Your task to perform on an android device: visit the assistant section in the google photos Image 0: 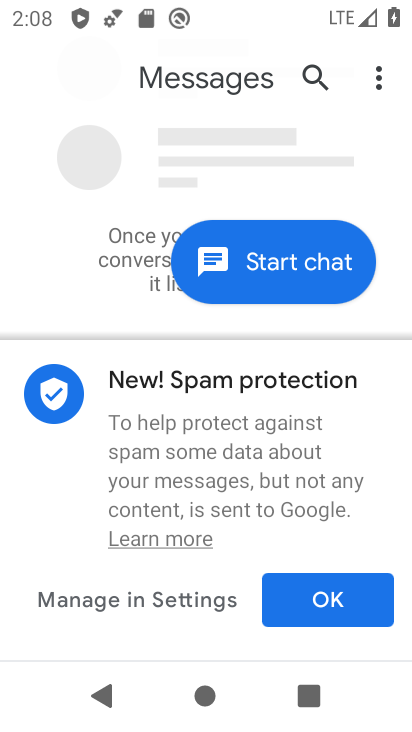
Step 0: press home button
Your task to perform on an android device: visit the assistant section in the google photos Image 1: 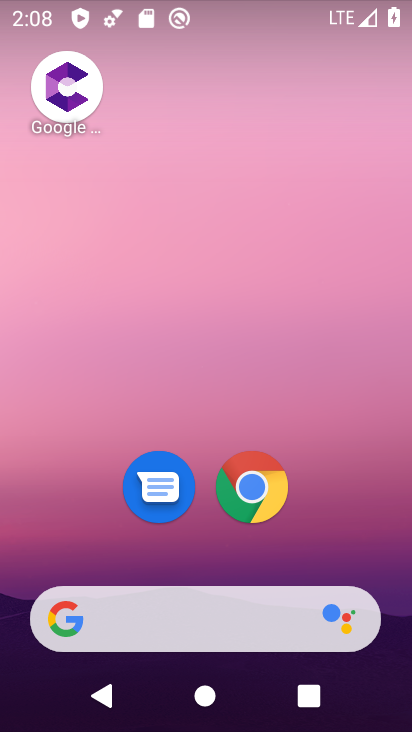
Step 1: drag from (212, 540) to (249, 4)
Your task to perform on an android device: visit the assistant section in the google photos Image 2: 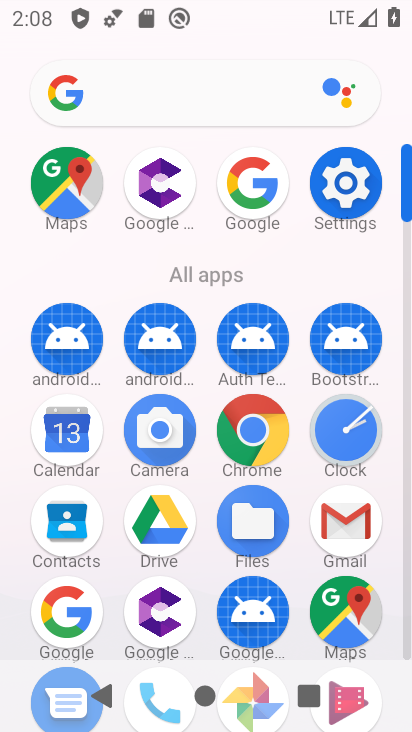
Step 2: drag from (205, 626) to (216, 289)
Your task to perform on an android device: visit the assistant section in the google photos Image 3: 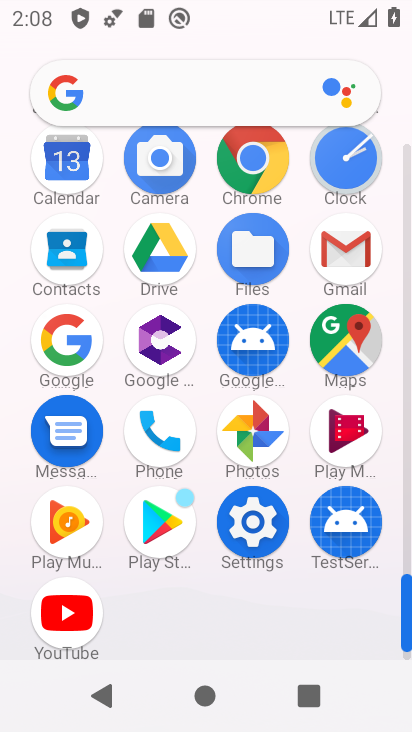
Step 3: click (256, 444)
Your task to perform on an android device: visit the assistant section in the google photos Image 4: 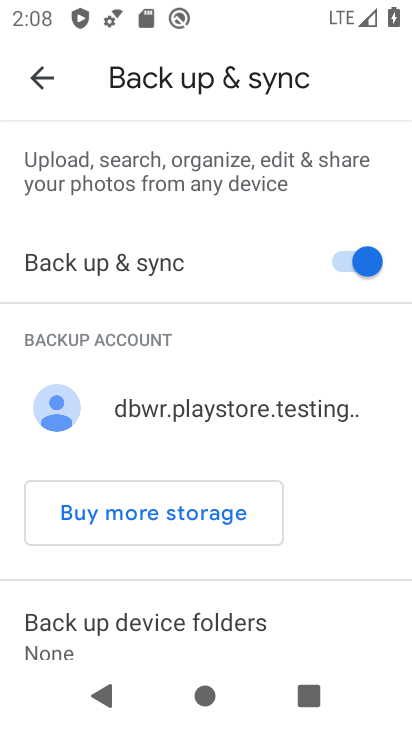
Step 4: press back button
Your task to perform on an android device: visit the assistant section in the google photos Image 5: 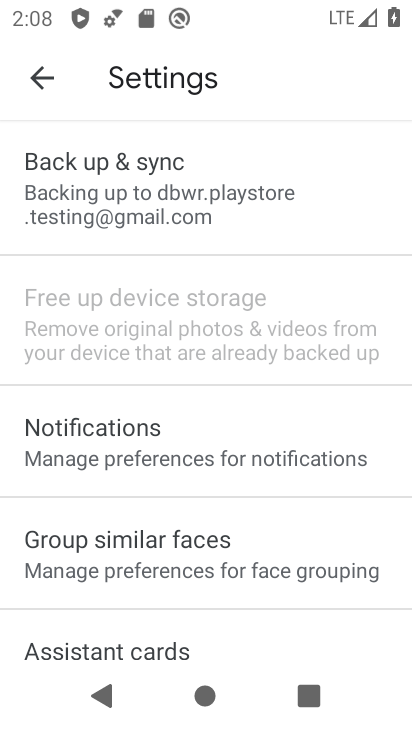
Step 5: press back button
Your task to perform on an android device: visit the assistant section in the google photos Image 6: 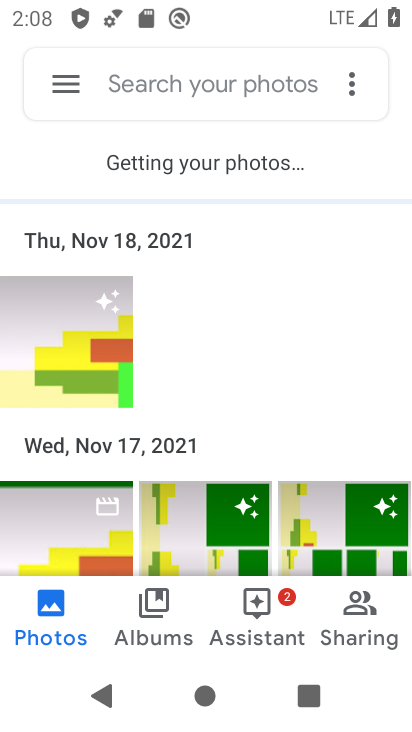
Step 6: click (268, 629)
Your task to perform on an android device: visit the assistant section in the google photos Image 7: 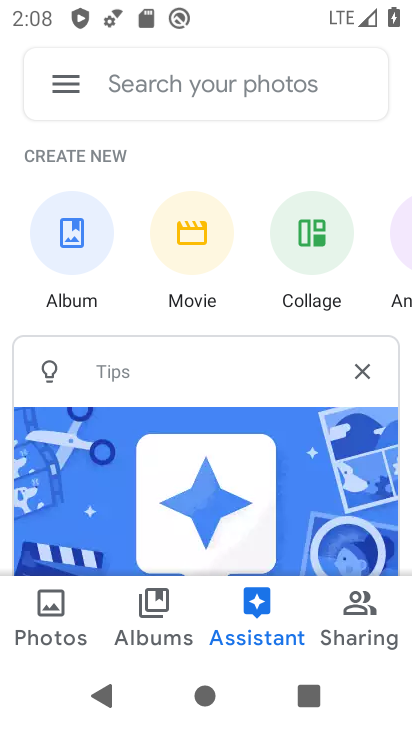
Step 7: task complete